Your task to perform on an android device: Do I have any events this weekend? Image 0: 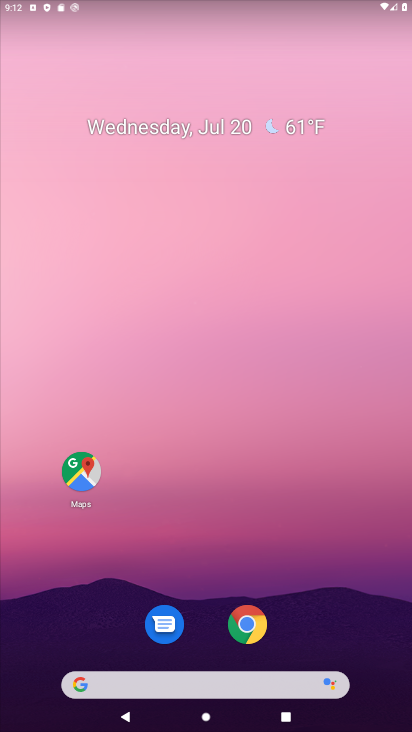
Step 0: drag from (218, 584) to (218, 13)
Your task to perform on an android device: Do I have any events this weekend? Image 1: 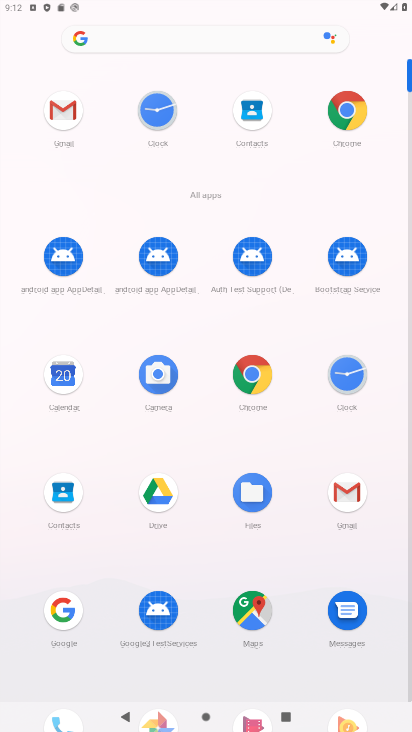
Step 1: click (59, 376)
Your task to perform on an android device: Do I have any events this weekend? Image 2: 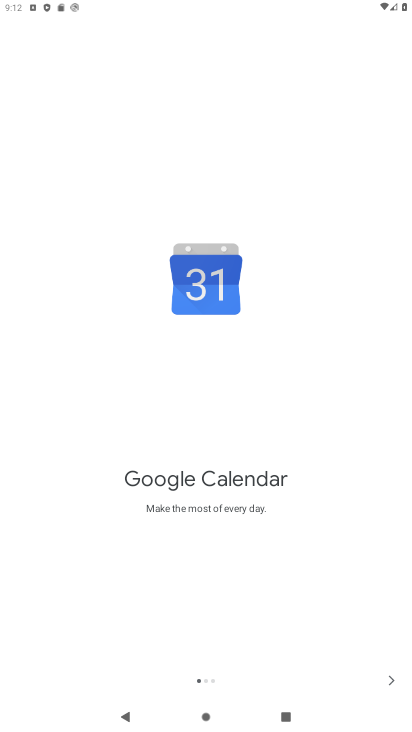
Step 2: click (391, 677)
Your task to perform on an android device: Do I have any events this weekend? Image 3: 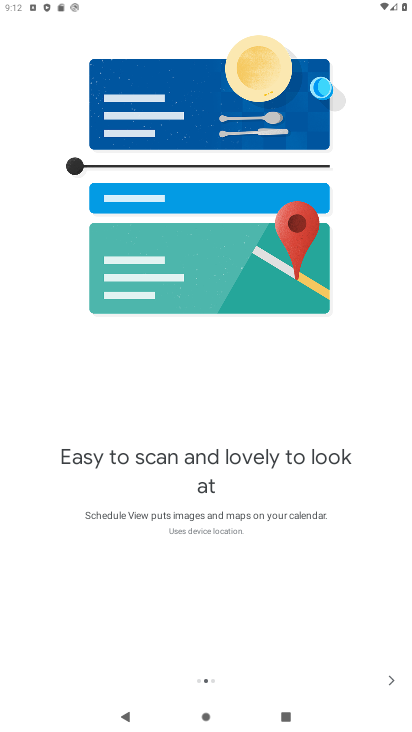
Step 3: click (391, 677)
Your task to perform on an android device: Do I have any events this weekend? Image 4: 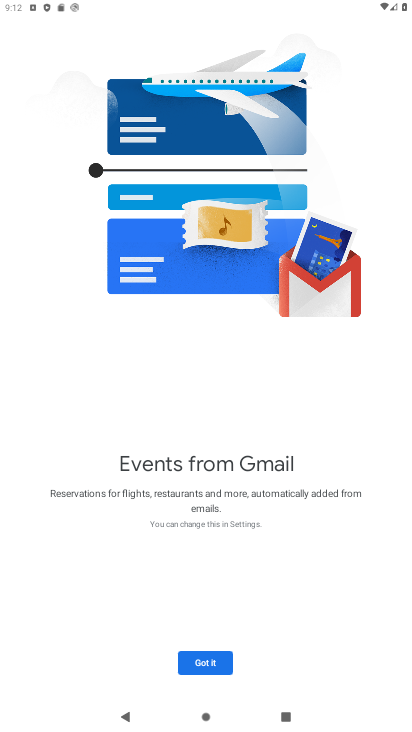
Step 4: click (214, 655)
Your task to perform on an android device: Do I have any events this weekend? Image 5: 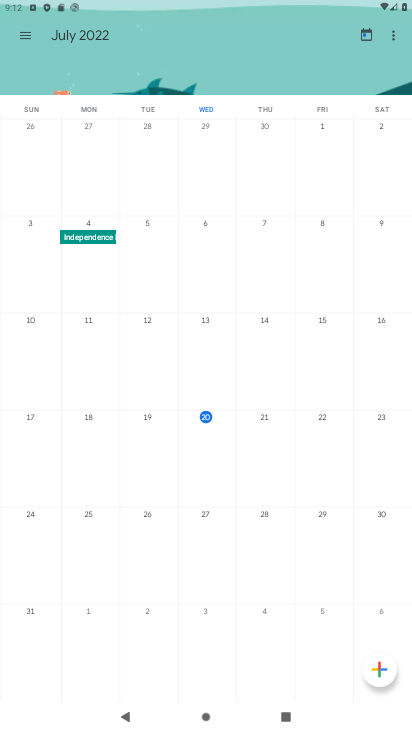
Step 5: click (368, 425)
Your task to perform on an android device: Do I have any events this weekend? Image 6: 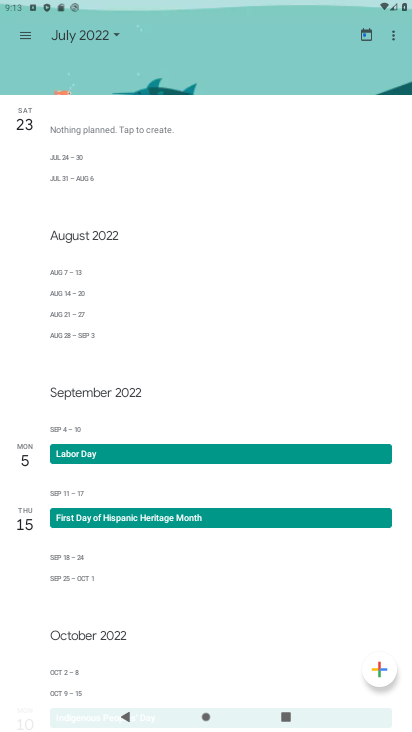
Step 6: press home button
Your task to perform on an android device: Do I have any events this weekend? Image 7: 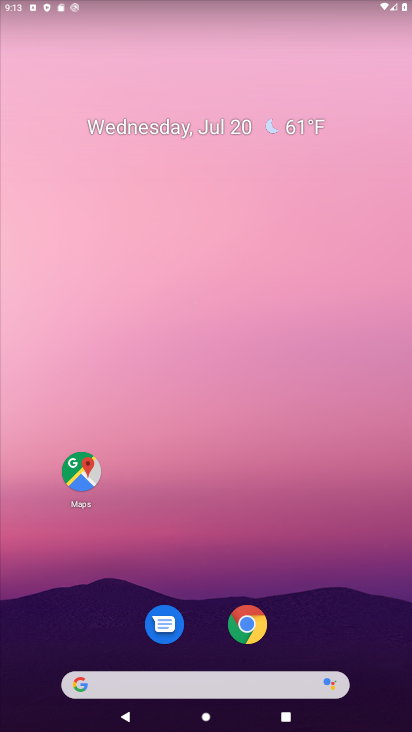
Step 7: drag from (211, 630) to (273, 146)
Your task to perform on an android device: Do I have any events this weekend? Image 8: 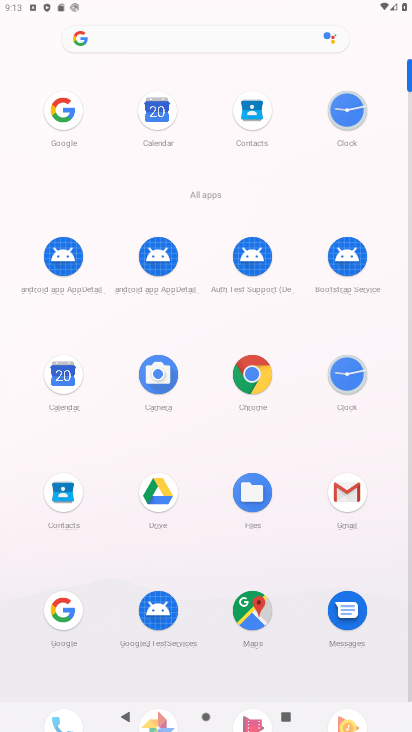
Step 8: click (54, 377)
Your task to perform on an android device: Do I have any events this weekend? Image 9: 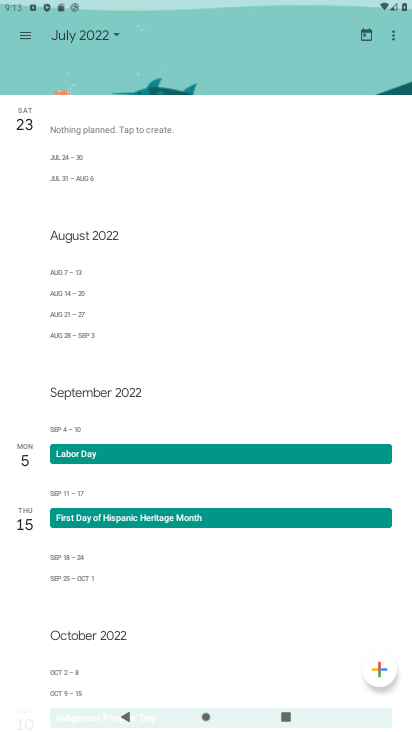
Step 9: click (116, 41)
Your task to perform on an android device: Do I have any events this weekend? Image 10: 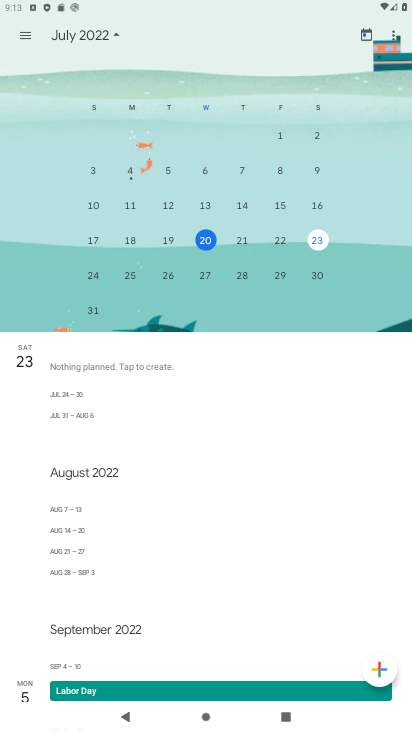
Step 10: click (320, 243)
Your task to perform on an android device: Do I have any events this weekend? Image 11: 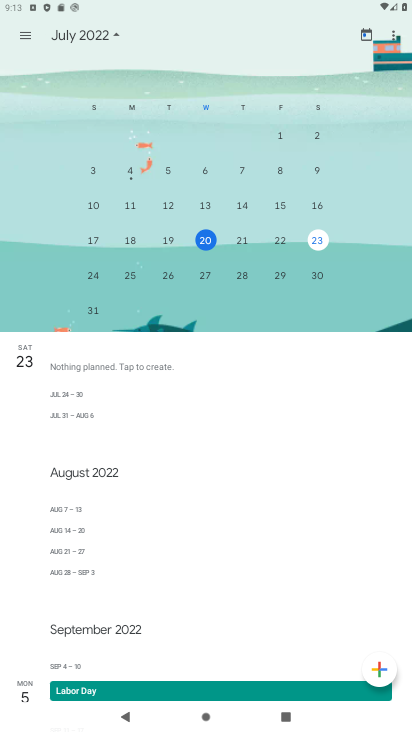
Step 11: task complete